Your task to perform on an android device: Search for Italian restaurants on Maps Image 0: 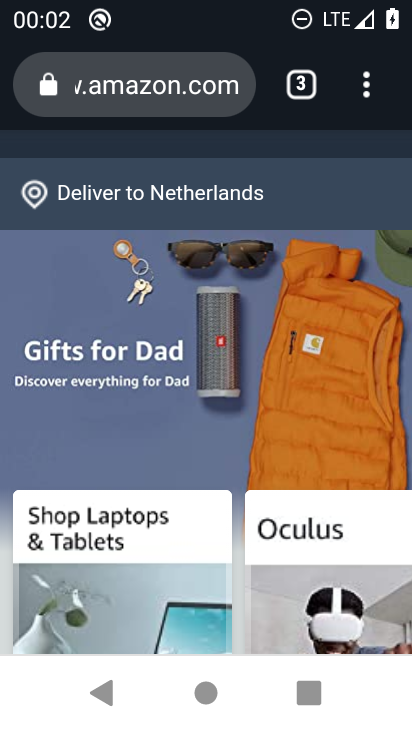
Step 0: drag from (243, 473) to (199, 0)
Your task to perform on an android device: Search for Italian restaurants on Maps Image 1: 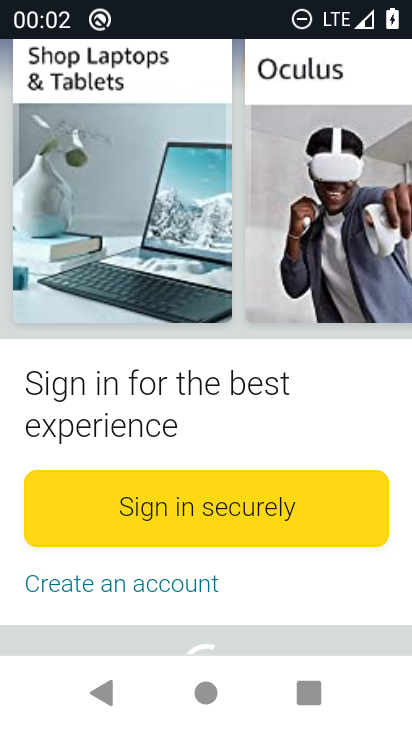
Step 1: drag from (234, 125) to (265, 541)
Your task to perform on an android device: Search for Italian restaurants on Maps Image 2: 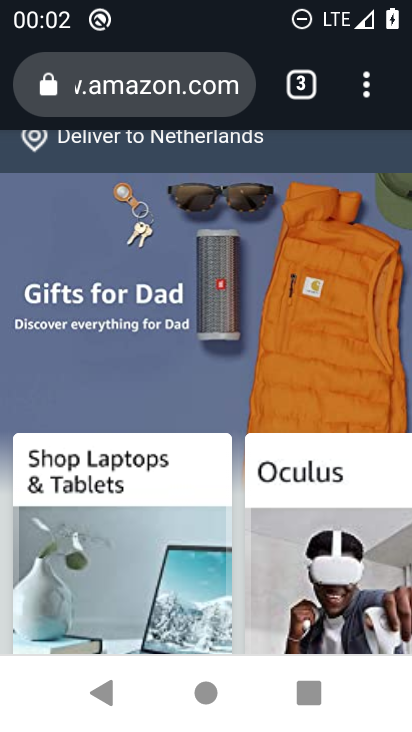
Step 2: click (381, 94)
Your task to perform on an android device: Search for Italian restaurants on Maps Image 3: 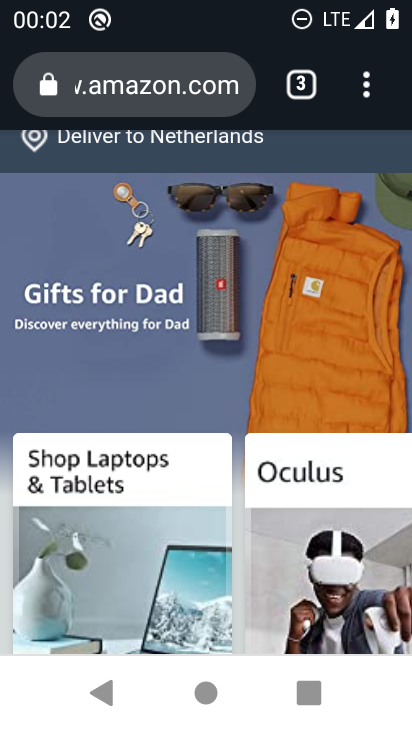
Step 3: click (368, 84)
Your task to perform on an android device: Search for Italian restaurants on Maps Image 4: 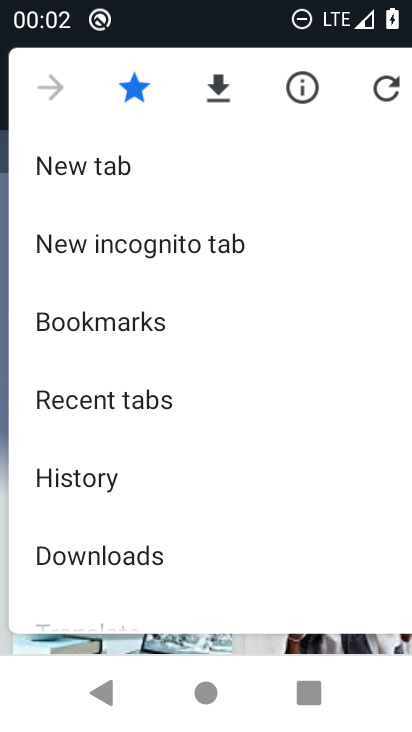
Step 4: drag from (216, 507) to (243, 151)
Your task to perform on an android device: Search for Italian restaurants on Maps Image 5: 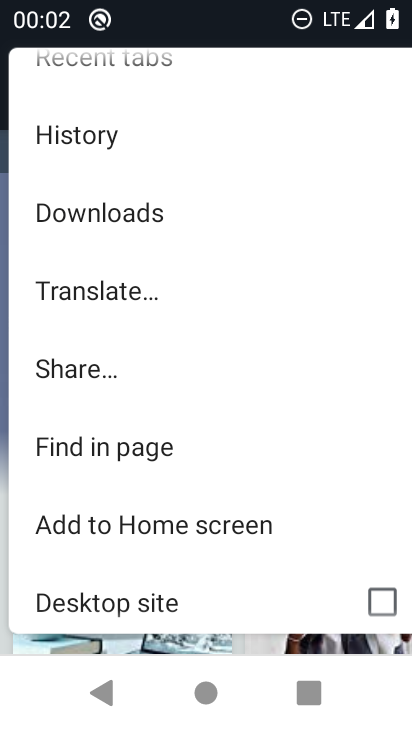
Step 5: drag from (209, 514) to (221, 247)
Your task to perform on an android device: Search for Italian restaurants on Maps Image 6: 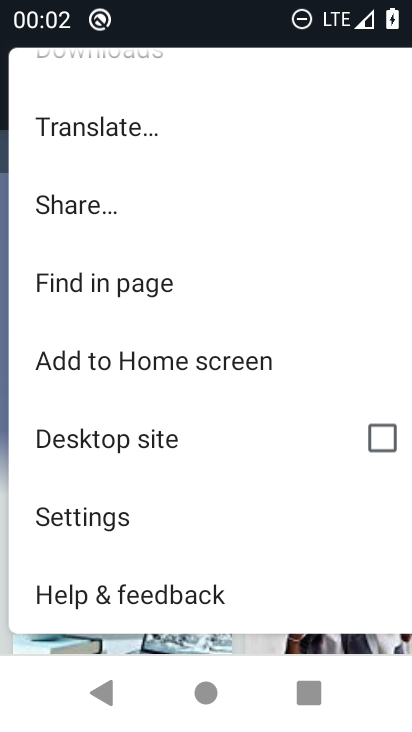
Step 6: click (182, 506)
Your task to perform on an android device: Search for Italian restaurants on Maps Image 7: 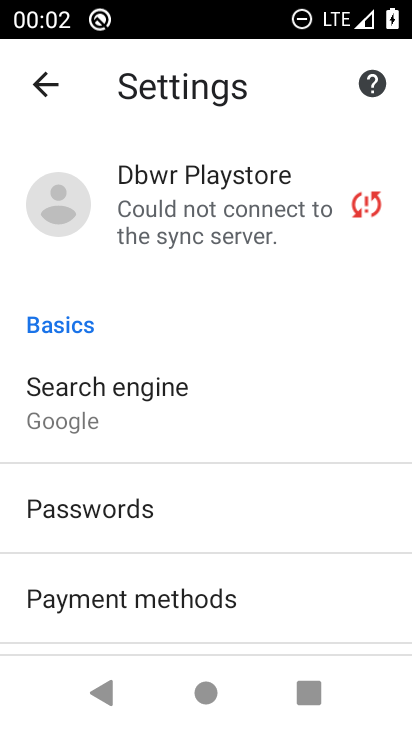
Step 7: drag from (196, 595) to (196, 172)
Your task to perform on an android device: Search for Italian restaurants on Maps Image 8: 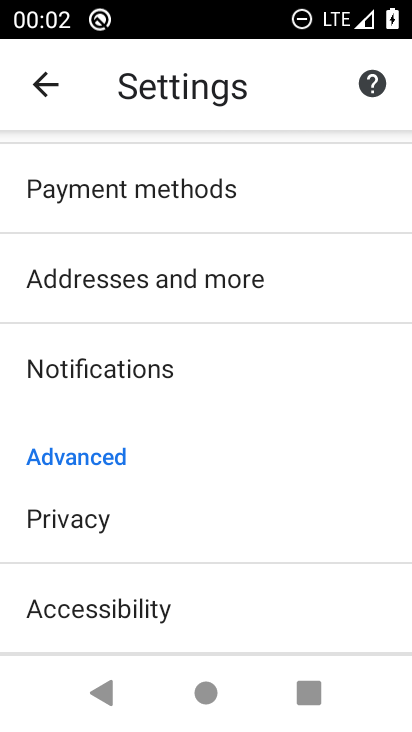
Step 8: drag from (172, 562) to (195, 257)
Your task to perform on an android device: Search for Italian restaurants on Maps Image 9: 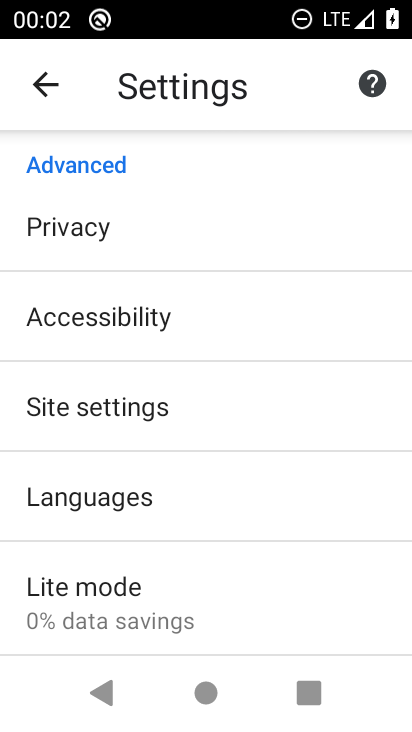
Step 9: drag from (182, 594) to (238, 176)
Your task to perform on an android device: Search for Italian restaurants on Maps Image 10: 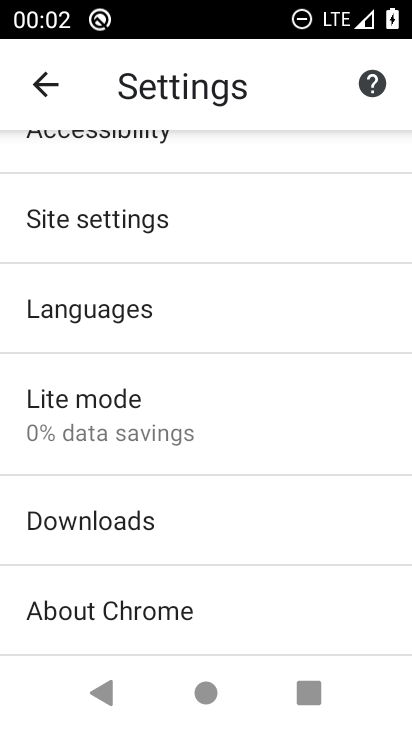
Step 10: drag from (166, 226) to (245, 606)
Your task to perform on an android device: Search for Italian restaurants on Maps Image 11: 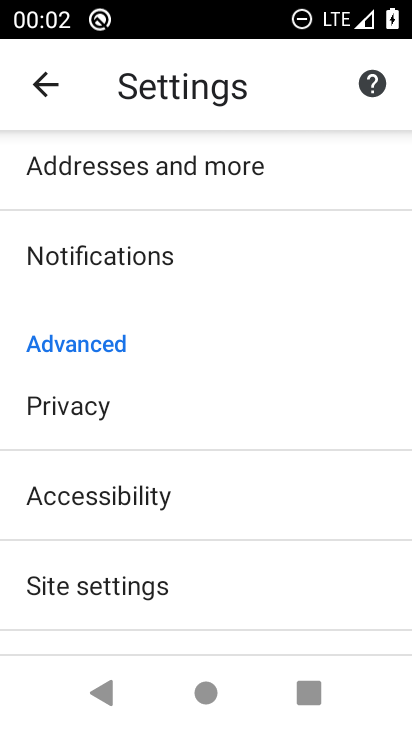
Step 11: press home button
Your task to perform on an android device: Search for Italian restaurants on Maps Image 12: 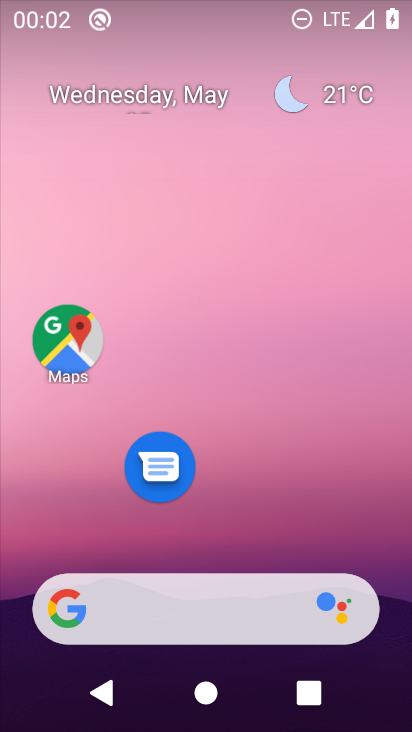
Step 12: click (55, 350)
Your task to perform on an android device: Search for Italian restaurants on Maps Image 13: 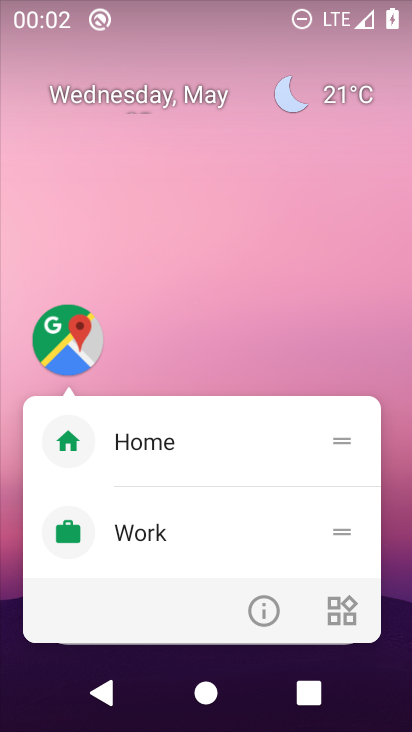
Step 13: click (272, 629)
Your task to perform on an android device: Search for Italian restaurants on Maps Image 14: 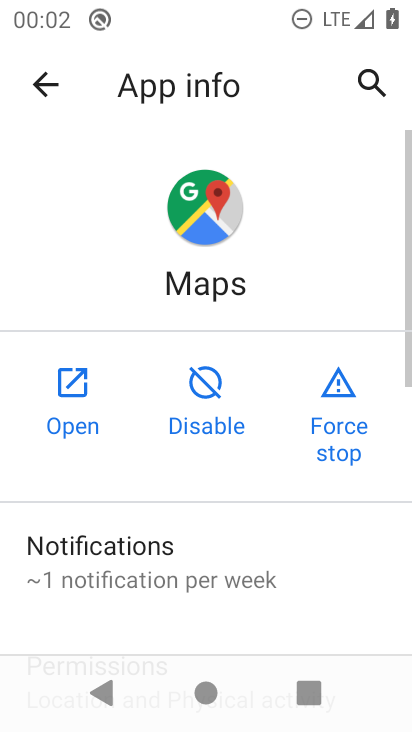
Step 14: click (59, 395)
Your task to perform on an android device: Search for Italian restaurants on Maps Image 15: 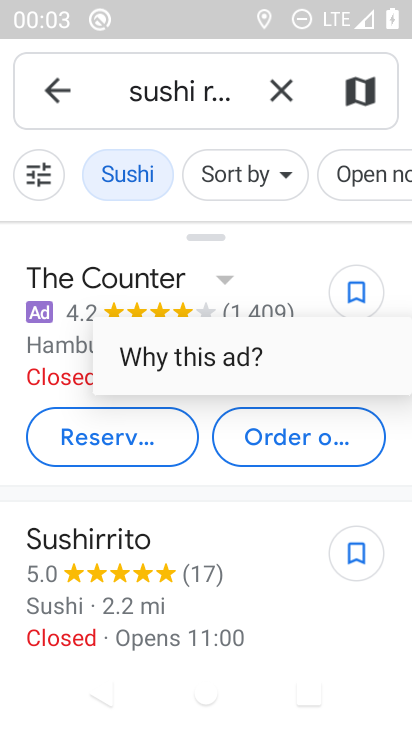
Step 15: drag from (225, 560) to (248, 178)
Your task to perform on an android device: Search for Italian restaurants on Maps Image 16: 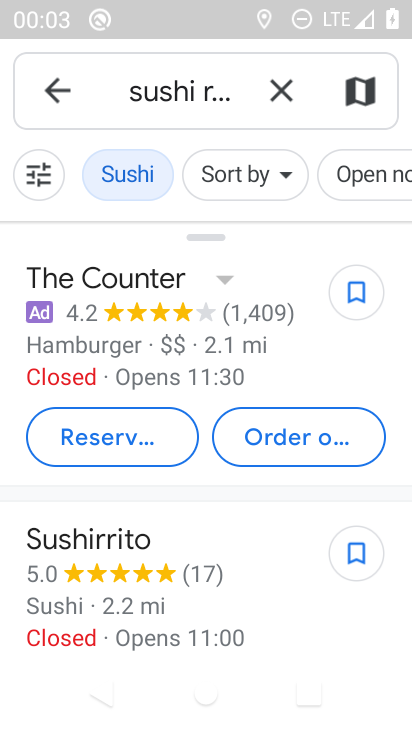
Step 16: click (287, 81)
Your task to perform on an android device: Search for Italian restaurants on Maps Image 17: 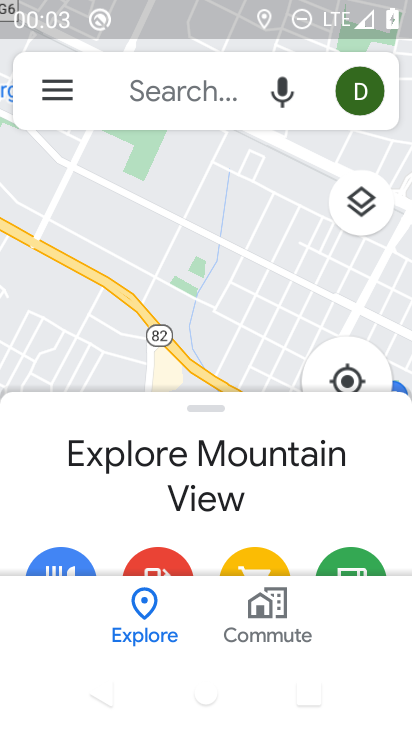
Step 17: click (176, 91)
Your task to perform on an android device: Search for Italian restaurants on Maps Image 18: 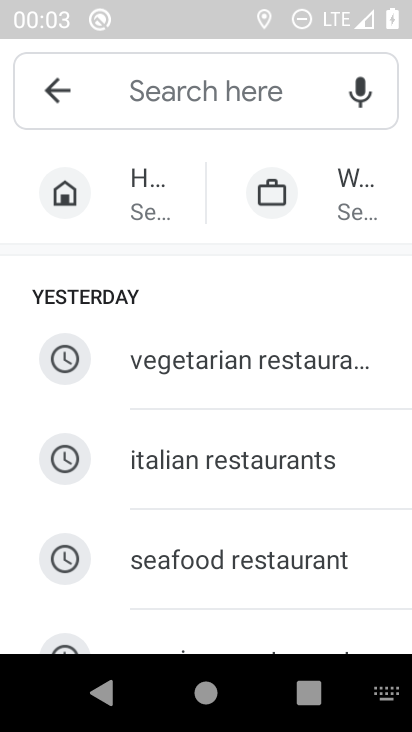
Step 18: click (225, 478)
Your task to perform on an android device: Search for Italian restaurants on Maps Image 19: 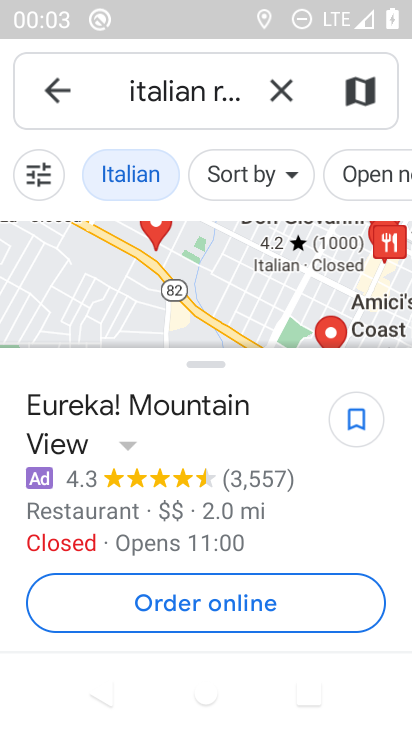
Step 19: task complete